Your task to perform on an android device: turn off picture-in-picture Image 0: 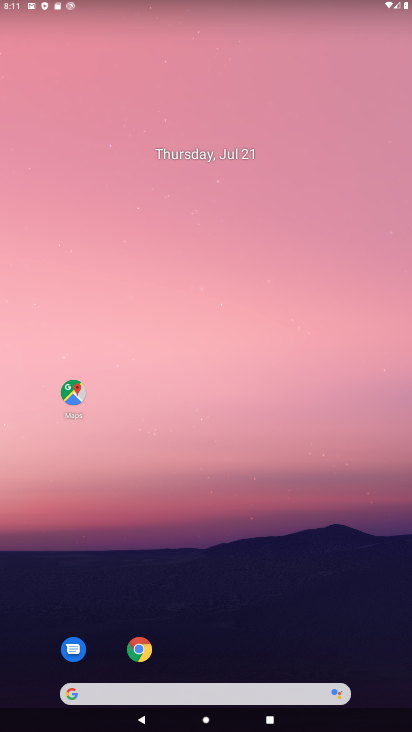
Step 0: click (138, 642)
Your task to perform on an android device: turn off picture-in-picture Image 1: 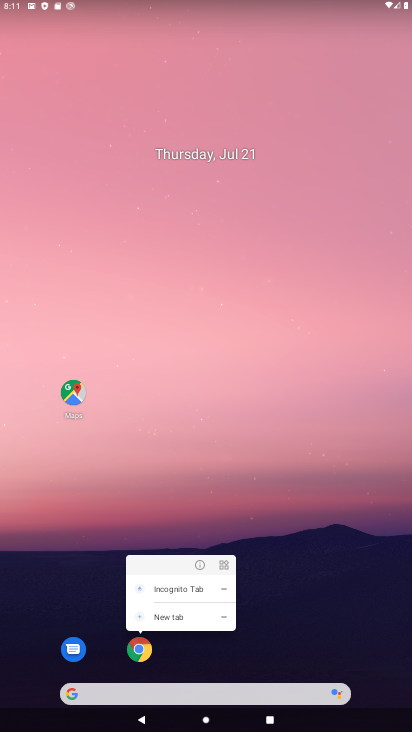
Step 1: click (194, 569)
Your task to perform on an android device: turn off picture-in-picture Image 2: 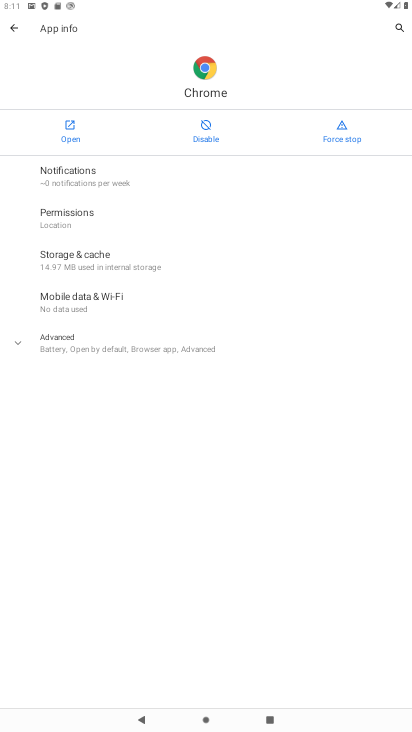
Step 2: click (76, 350)
Your task to perform on an android device: turn off picture-in-picture Image 3: 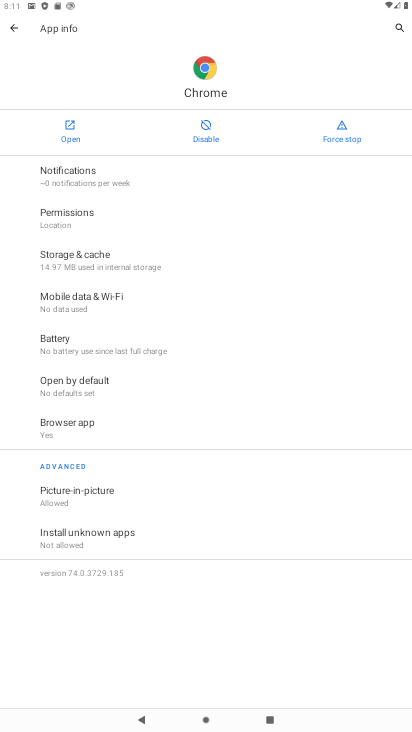
Step 3: click (95, 507)
Your task to perform on an android device: turn off picture-in-picture Image 4: 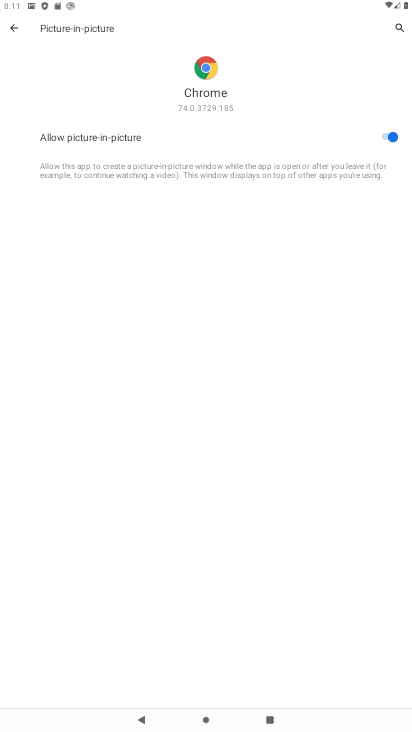
Step 4: click (396, 140)
Your task to perform on an android device: turn off picture-in-picture Image 5: 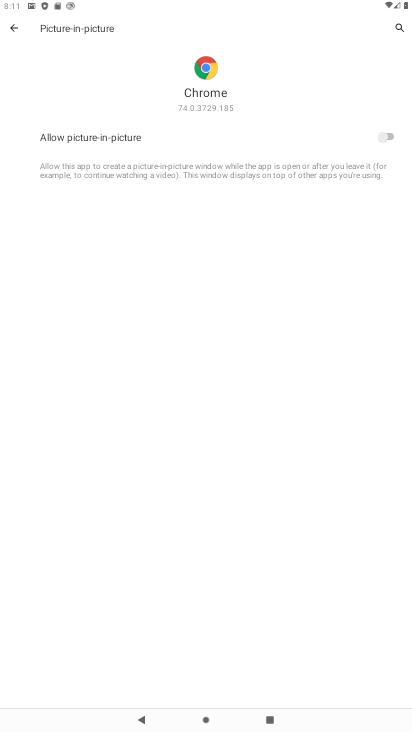
Step 5: task complete